Your task to perform on an android device: turn notification dots off Image 0: 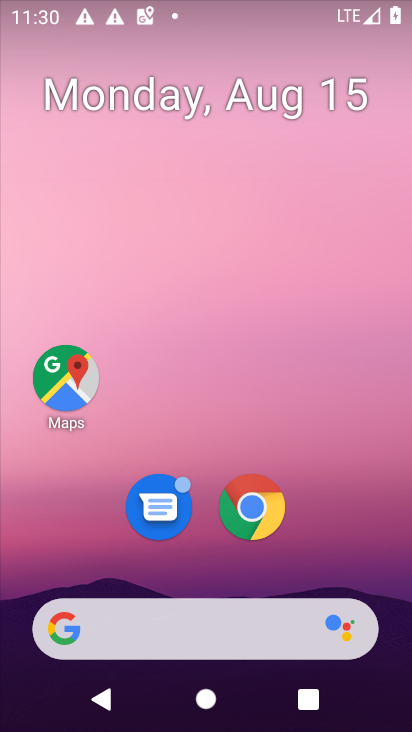
Step 0: drag from (208, 568) to (232, 0)
Your task to perform on an android device: turn notification dots off Image 1: 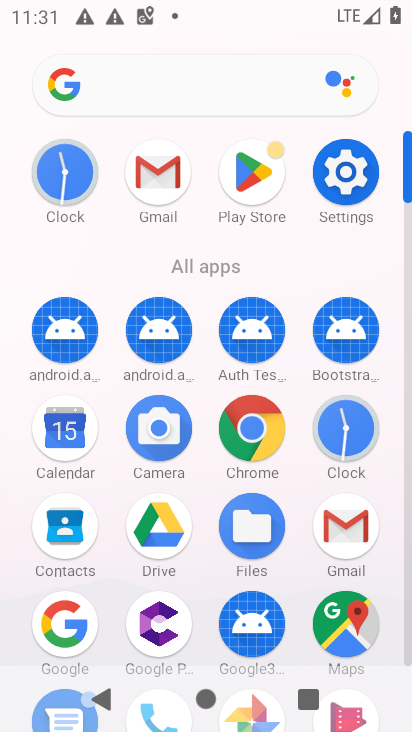
Step 1: click (347, 172)
Your task to perform on an android device: turn notification dots off Image 2: 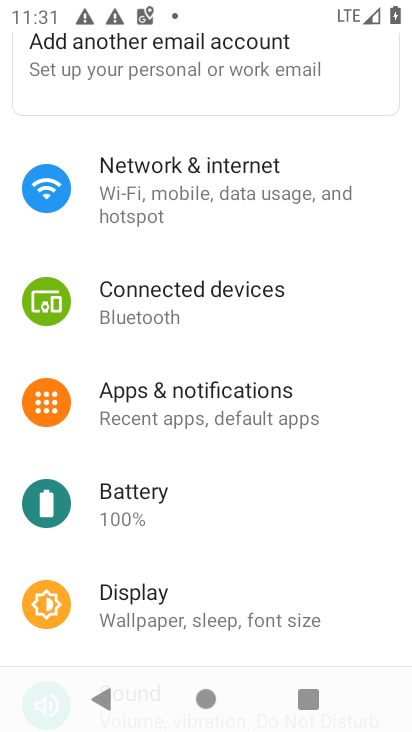
Step 2: click (203, 387)
Your task to perform on an android device: turn notification dots off Image 3: 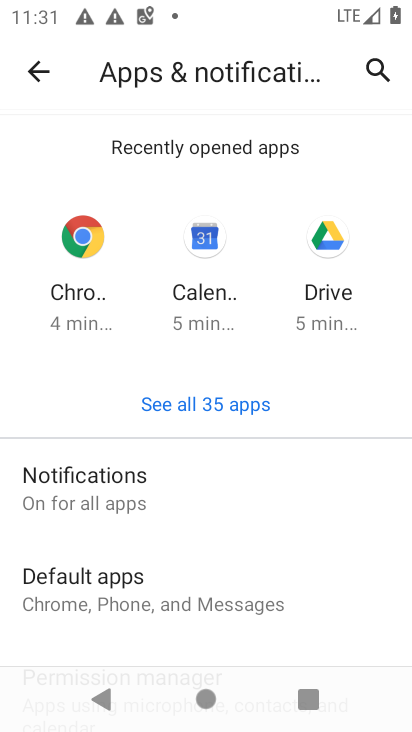
Step 3: click (77, 468)
Your task to perform on an android device: turn notification dots off Image 4: 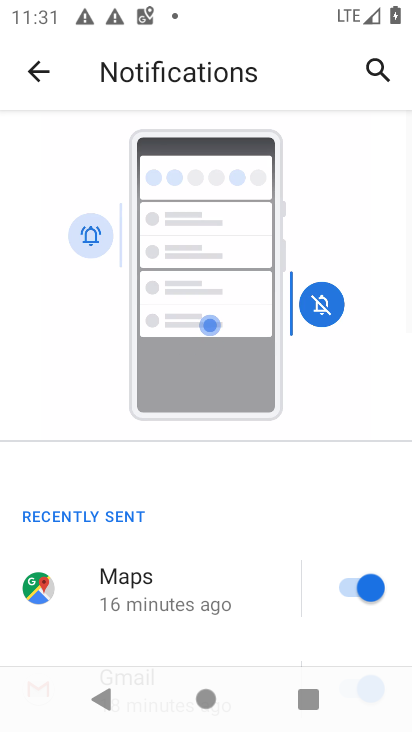
Step 4: drag from (218, 537) to (219, 270)
Your task to perform on an android device: turn notification dots off Image 5: 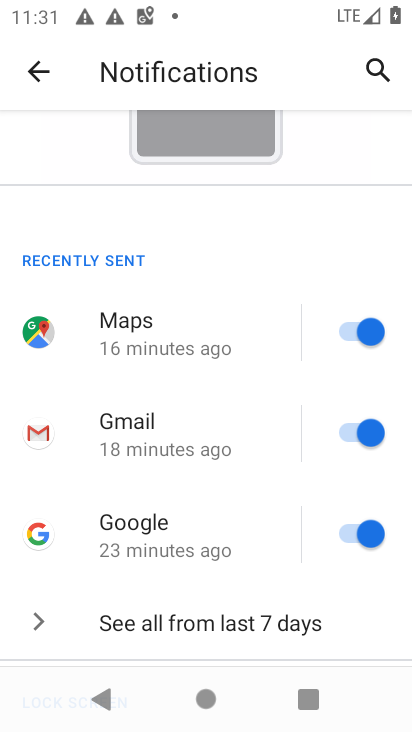
Step 5: drag from (224, 581) to (220, 190)
Your task to perform on an android device: turn notification dots off Image 6: 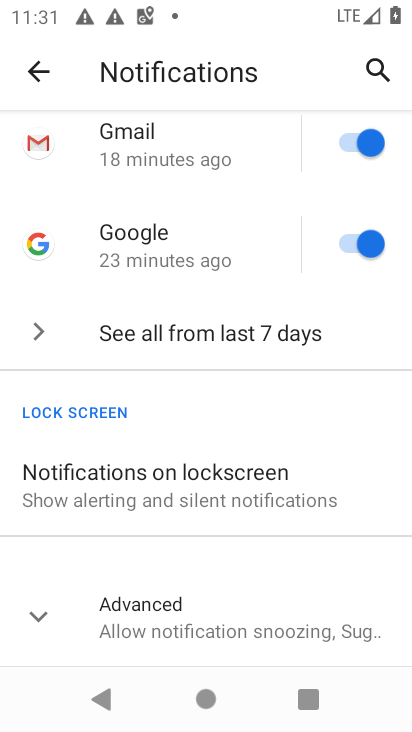
Step 6: click (37, 617)
Your task to perform on an android device: turn notification dots off Image 7: 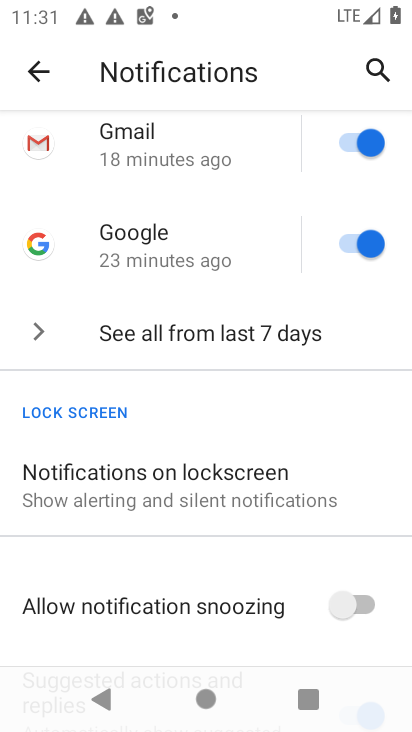
Step 7: drag from (214, 522) to (200, 223)
Your task to perform on an android device: turn notification dots off Image 8: 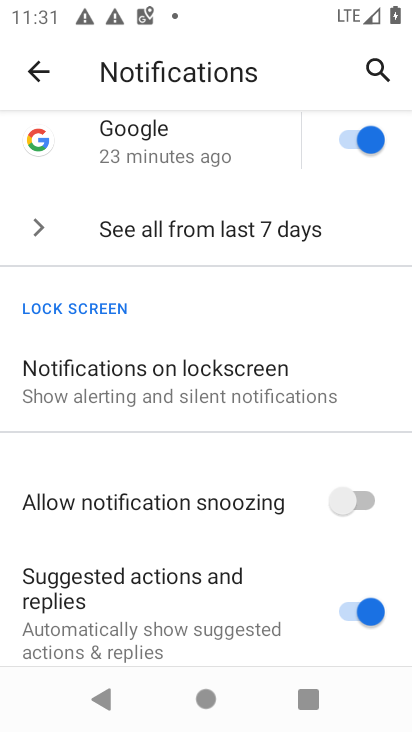
Step 8: drag from (209, 591) to (179, 274)
Your task to perform on an android device: turn notification dots off Image 9: 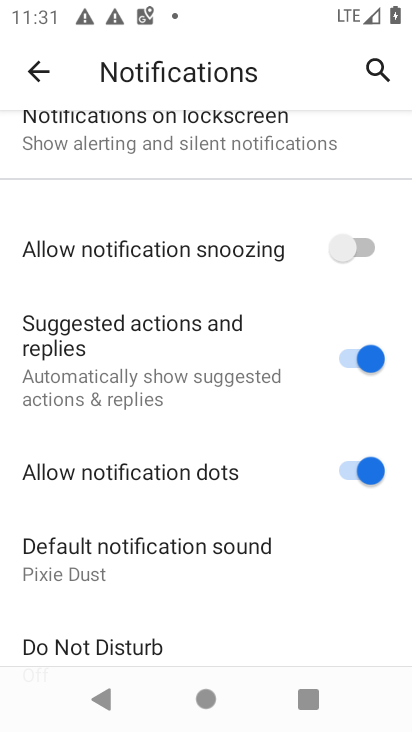
Step 9: click (376, 466)
Your task to perform on an android device: turn notification dots off Image 10: 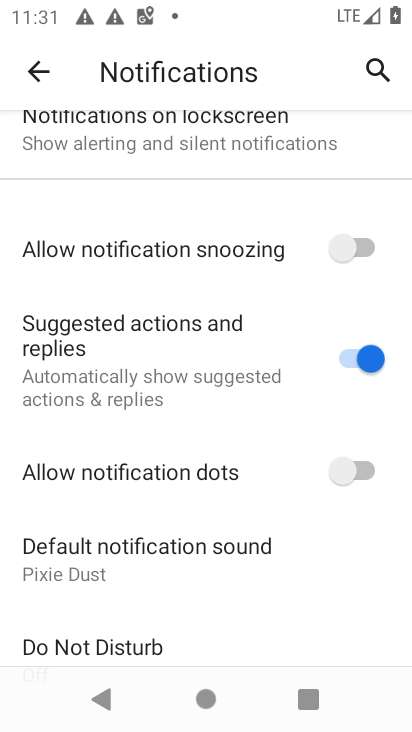
Step 10: task complete